Your task to perform on an android device: turn pop-ups on in chrome Image 0: 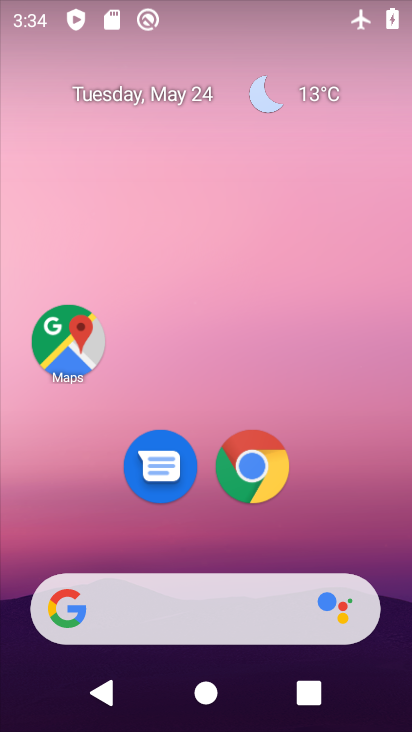
Step 0: click (247, 460)
Your task to perform on an android device: turn pop-ups on in chrome Image 1: 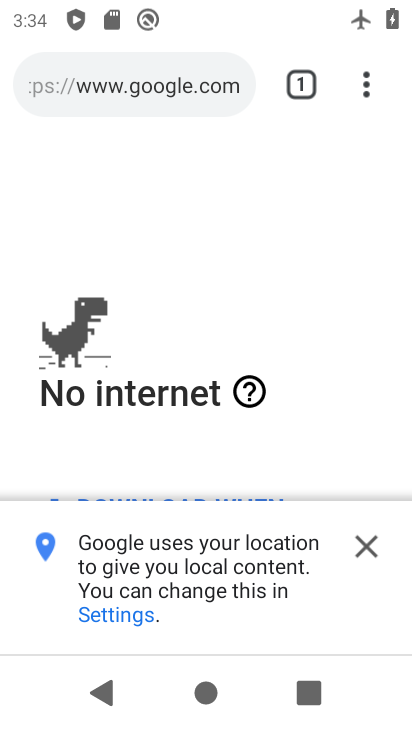
Step 1: click (371, 85)
Your task to perform on an android device: turn pop-ups on in chrome Image 2: 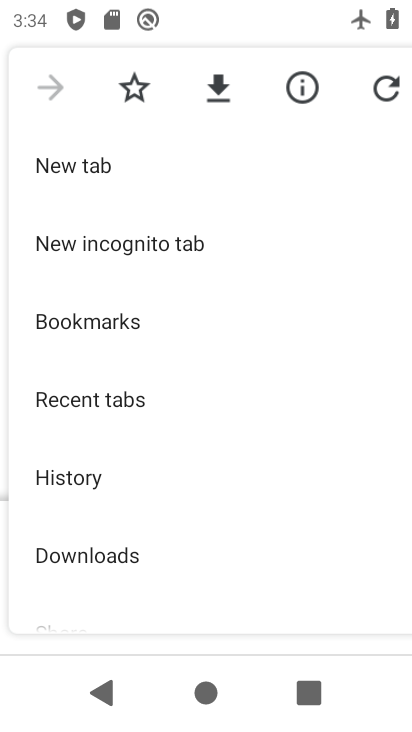
Step 2: drag from (195, 564) to (240, 214)
Your task to perform on an android device: turn pop-ups on in chrome Image 3: 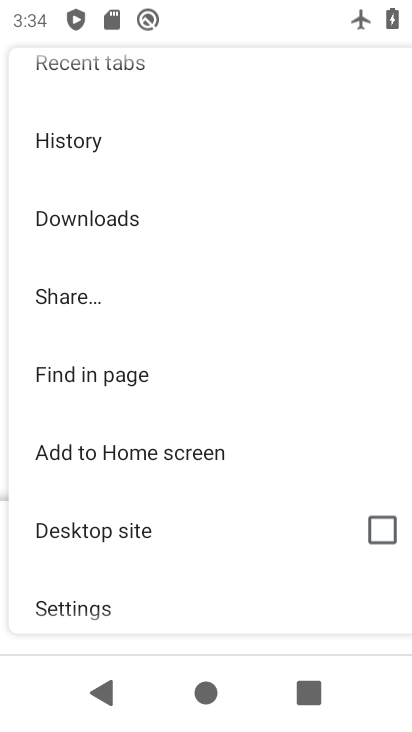
Step 3: click (82, 606)
Your task to perform on an android device: turn pop-ups on in chrome Image 4: 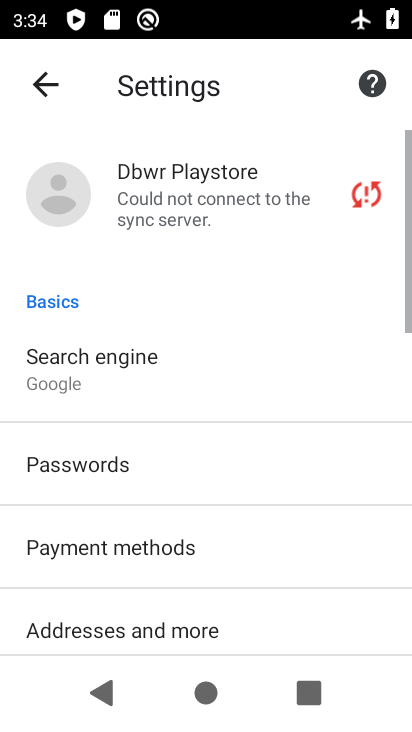
Step 4: drag from (139, 558) to (321, 171)
Your task to perform on an android device: turn pop-ups on in chrome Image 5: 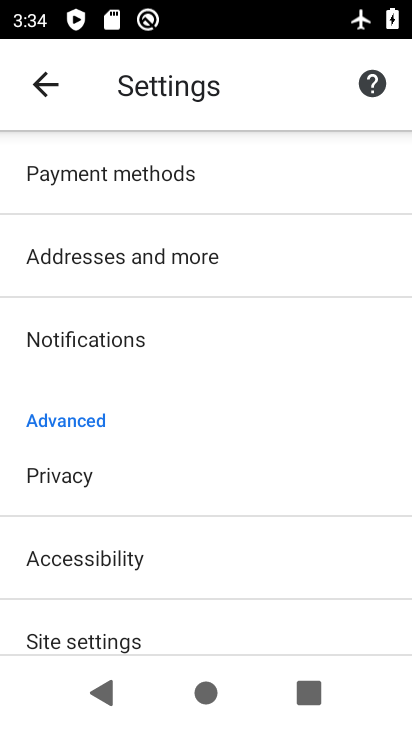
Step 5: drag from (176, 513) to (263, 318)
Your task to perform on an android device: turn pop-ups on in chrome Image 6: 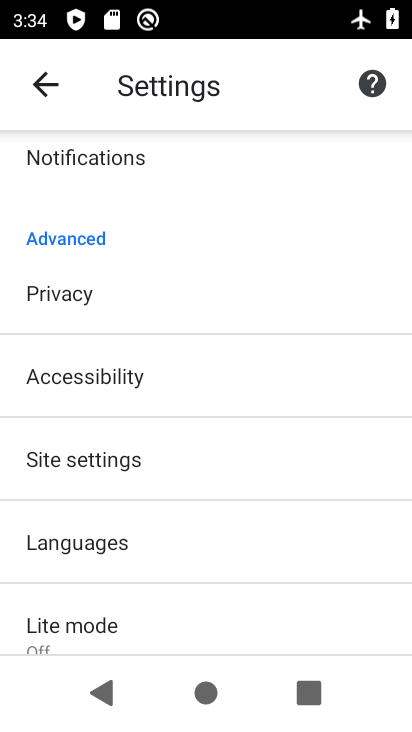
Step 6: click (138, 459)
Your task to perform on an android device: turn pop-ups on in chrome Image 7: 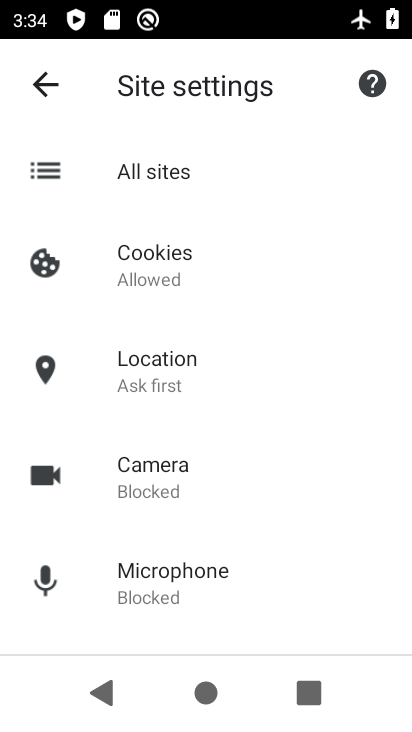
Step 7: drag from (218, 506) to (311, 160)
Your task to perform on an android device: turn pop-ups on in chrome Image 8: 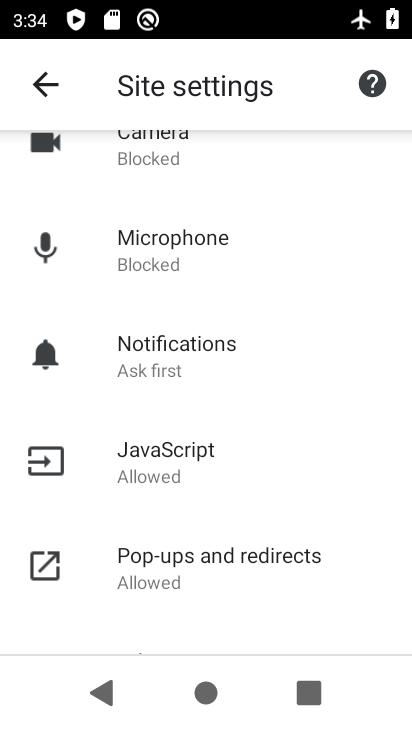
Step 8: click (193, 547)
Your task to perform on an android device: turn pop-ups on in chrome Image 9: 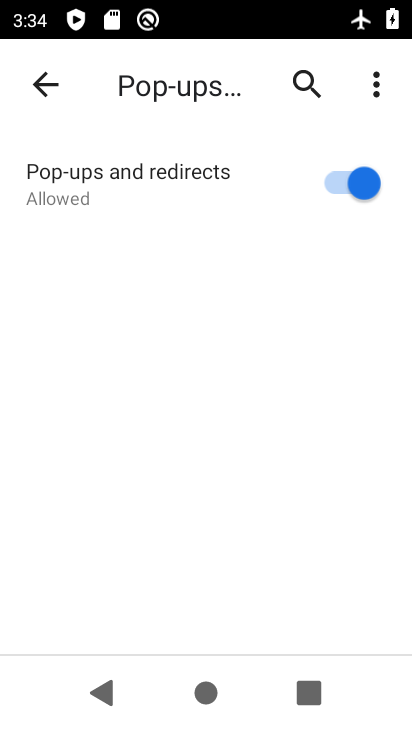
Step 9: task complete